Your task to perform on an android device: What's the weather today? Image 0: 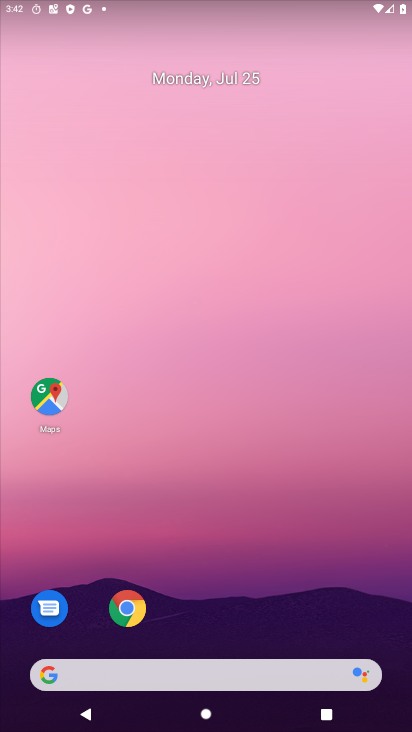
Step 0: press home button
Your task to perform on an android device: What's the weather today? Image 1: 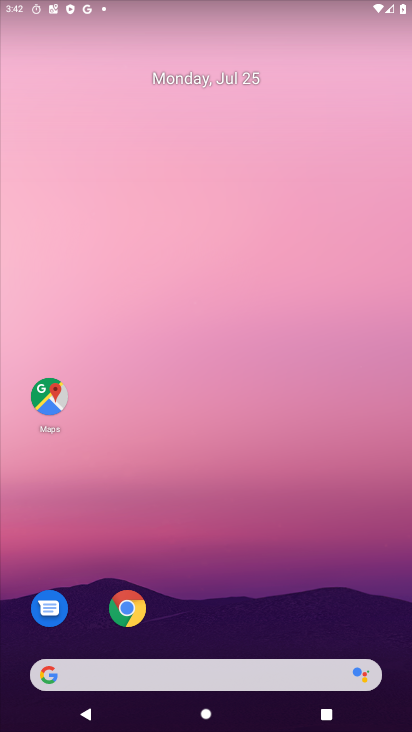
Step 1: click (177, 666)
Your task to perform on an android device: What's the weather today? Image 2: 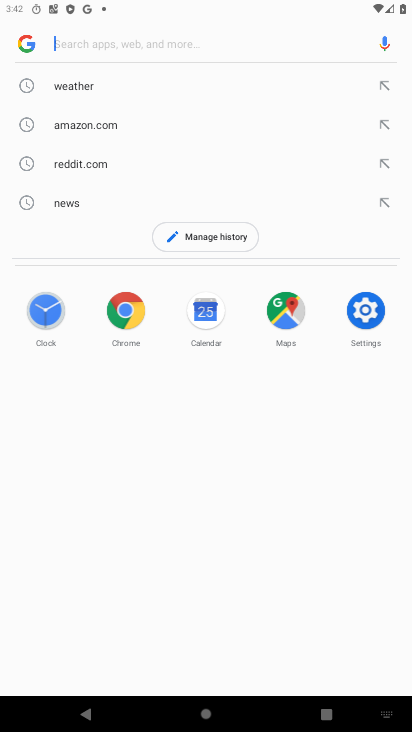
Step 2: click (100, 76)
Your task to perform on an android device: What's the weather today? Image 3: 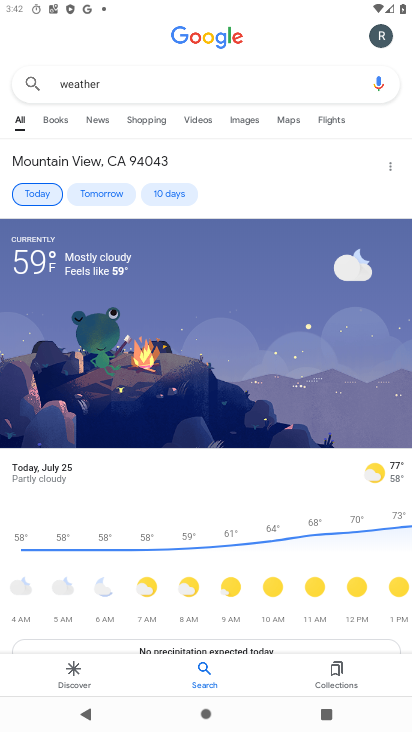
Step 3: task complete